Your task to perform on an android device: When is my next appointment? Image 0: 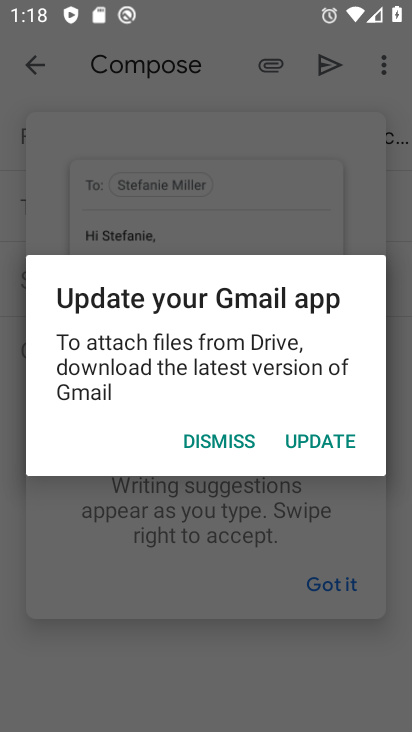
Step 0: press home button
Your task to perform on an android device: When is my next appointment? Image 1: 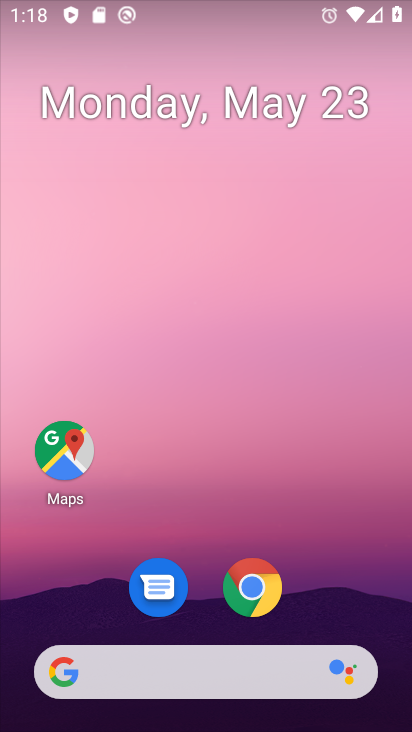
Step 1: drag from (322, 597) to (340, 230)
Your task to perform on an android device: When is my next appointment? Image 2: 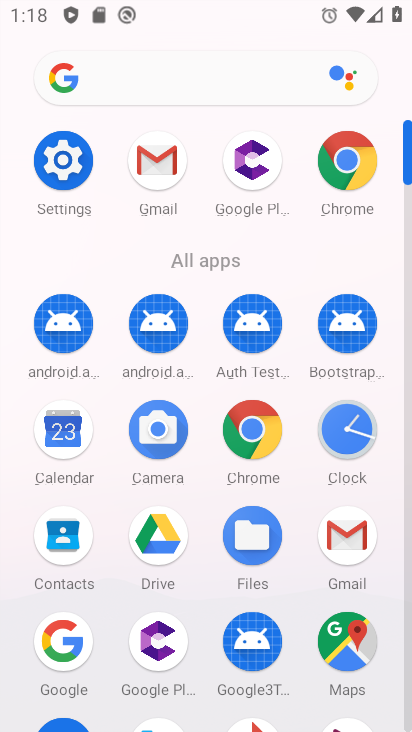
Step 2: click (47, 436)
Your task to perform on an android device: When is my next appointment? Image 3: 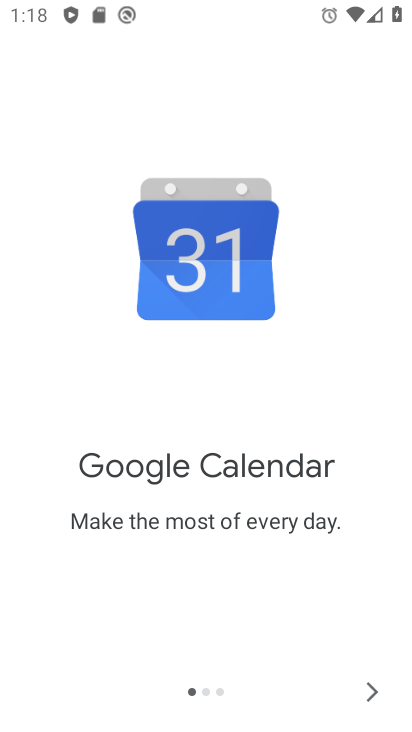
Step 3: click (392, 699)
Your task to perform on an android device: When is my next appointment? Image 4: 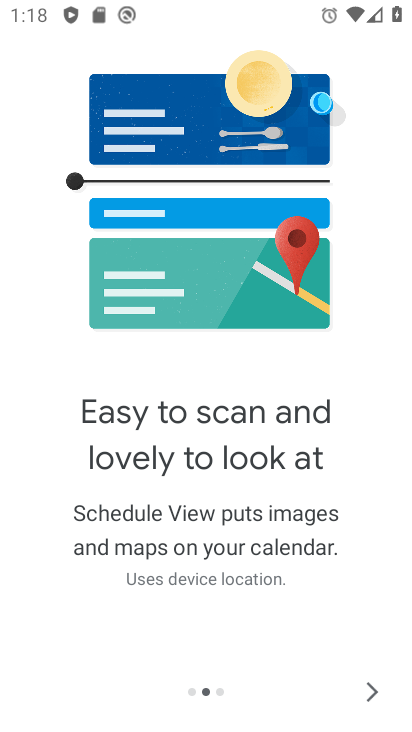
Step 4: click (390, 697)
Your task to perform on an android device: When is my next appointment? Image 5: 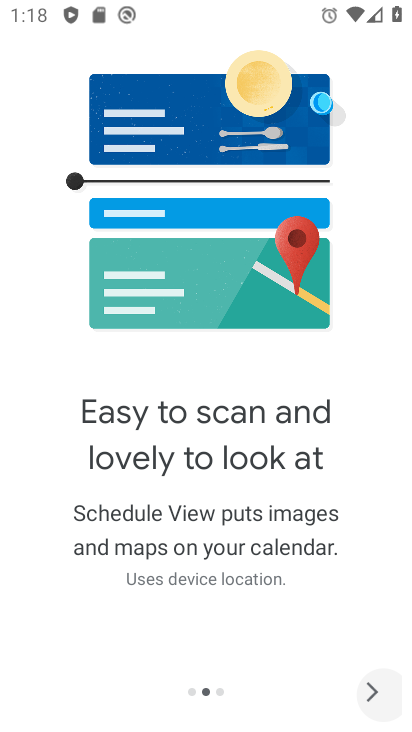
Step 5: click (390, 697)
Your task to perform on an android device: When is my next appointment? Image 6: 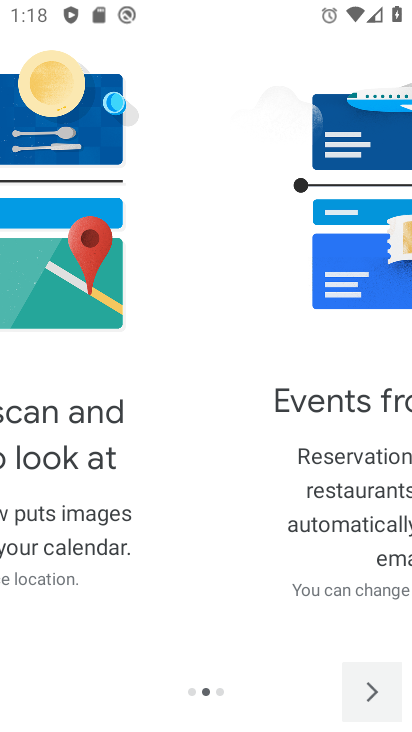
Step 6: click (390, 697)
Your task to perform on an android device: When is my next appointment? Image 7: 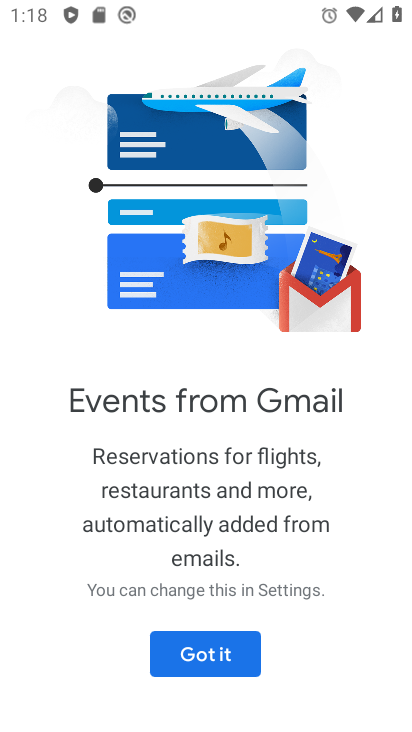
Step 7: click (249, 639)
Your task to perform on an android device: When is my next appointment? Image 8: 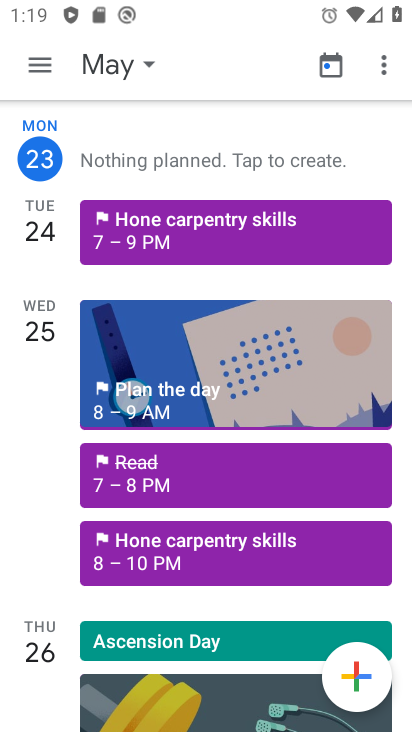
Step 8: task complete